Your task to perform on an android device: Open Google Maps and go to "Timeline" Image 0: 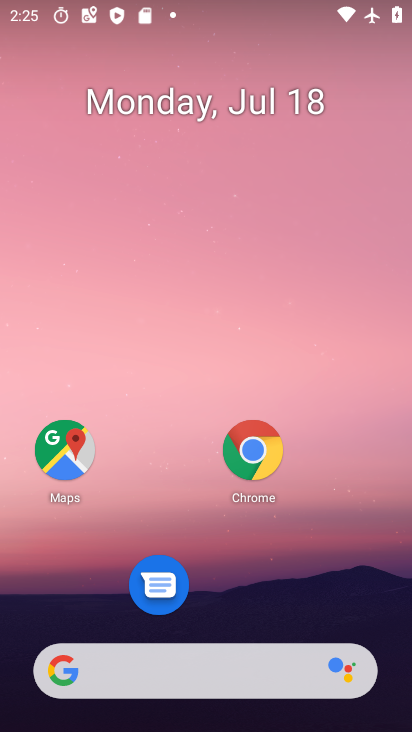
Step 0: click (64, 452)
Your task to perform on an android device: Open Google Maps and go to "Timeline" Image 1: 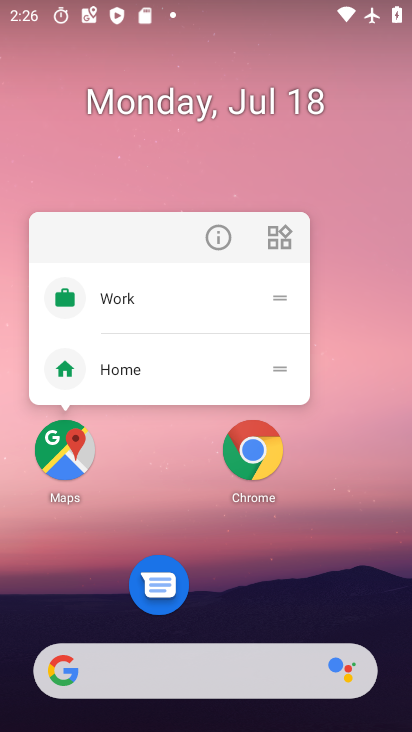
Step 1: click (58, 460)
Your task to perform on an android device: Open Google Maps and go to "Timeline" Image 2: 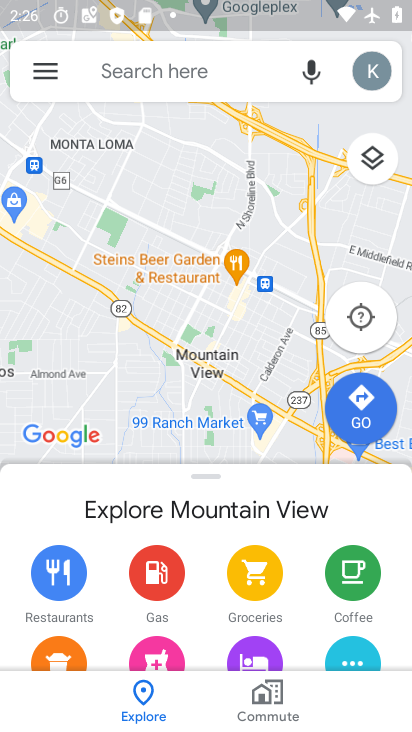
Step 2: click (38, 68)
Your task to perform on an android device: Open Google Maps and go to "Timeline" Image 3: 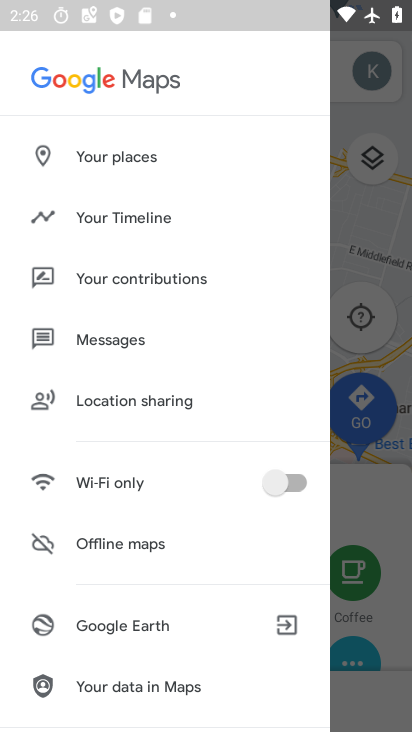
Step 3: click (121, 218)
Your task to perform on an android device: Open Google Maps and go to "Timeline" Image 4: 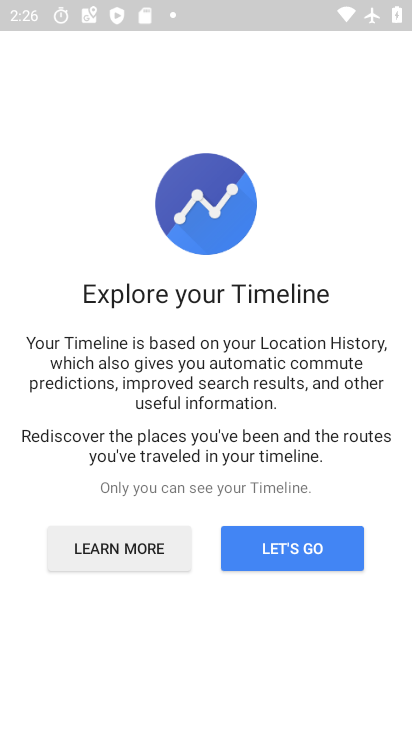
Step 4: click (311, 554)
Your task to perform on an android device: Open Google Maps and go to "Timeline" Image 5: 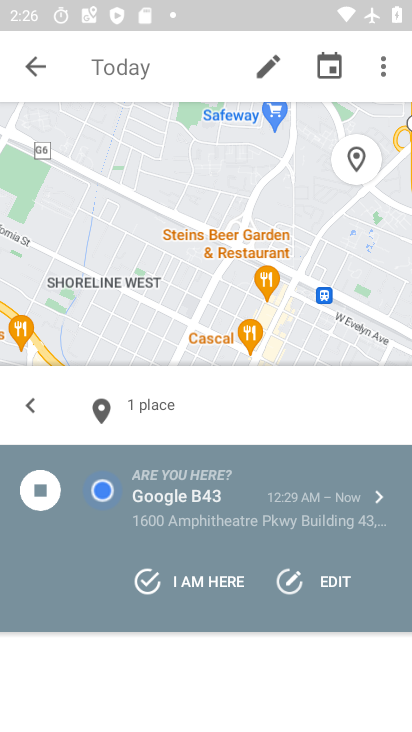
Step 5: task complete